Your task to perform on an android device: turn on priority inbox in the gmail app Image 0: 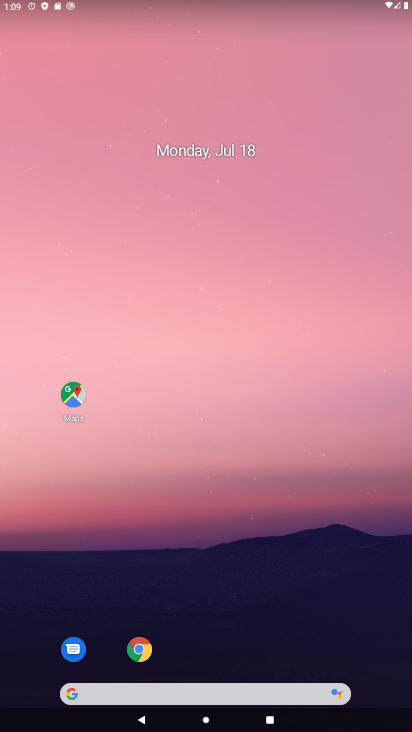
Step 0: drag from (215, 670) to (212, 211)
Your task to perform on an android device: turn on priority inbox in the gmail app Image 1: 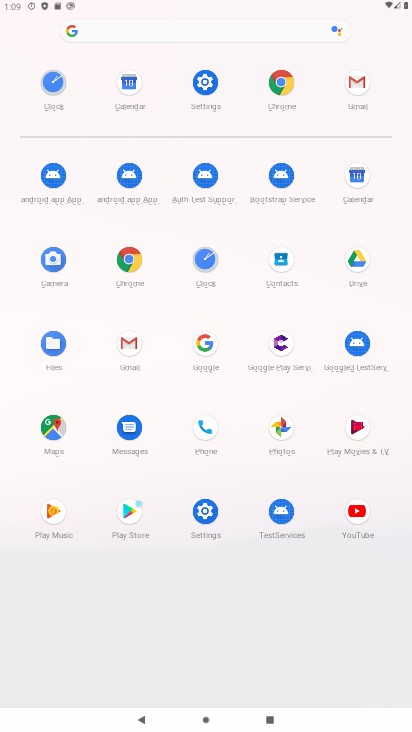
Step 1: click (369, 86)
Your task to perform on an android device: turn on priority inbox in the gmail app Image 2: 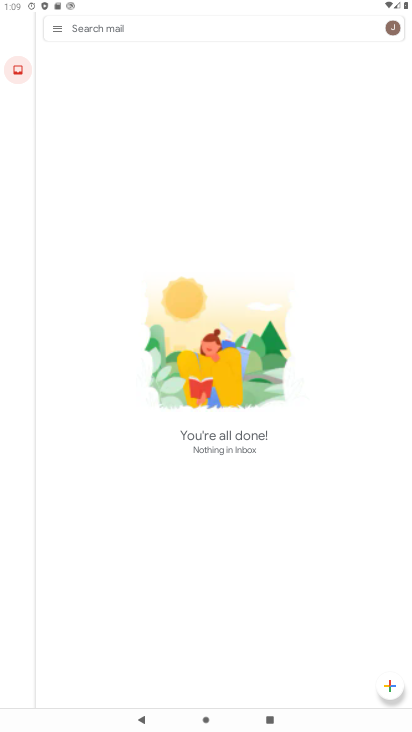
Step 2: click (58, 31)
Your task to perform on an android device: turn on priority inbox in the gmail app Image 3: 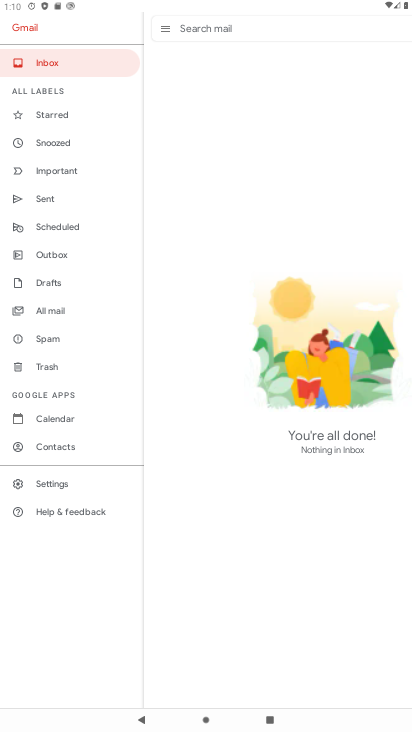
Step 3: click (40, 483)
Your task to perform on an android device: turn on priority inbox in the gmail app Image 4: 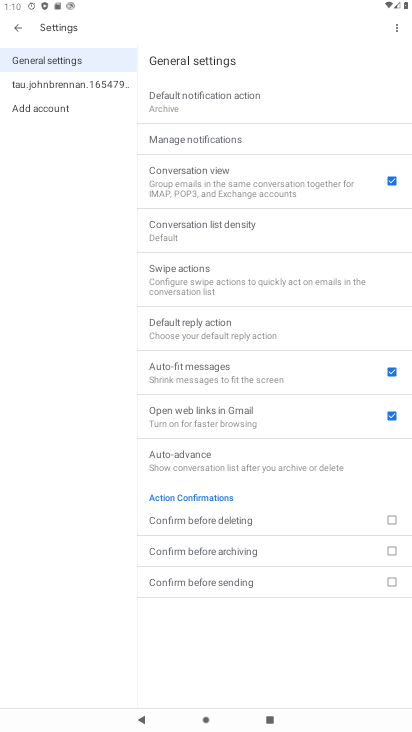
Step 4: click (32, 85)
Your task to perform on an android device: turn on priority inbox in the gmail app Image 5: 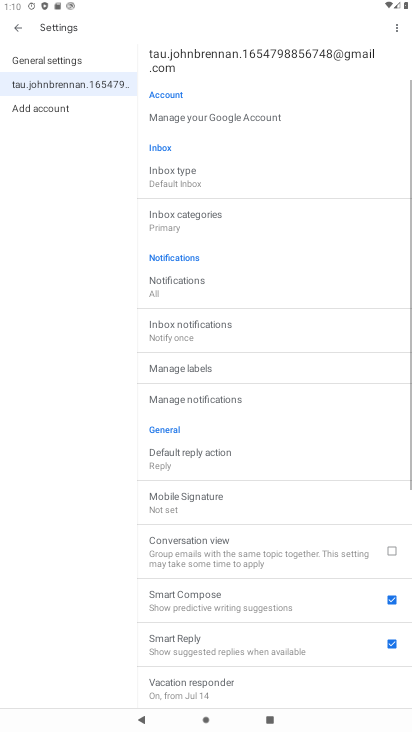
Step 5: click (221, 182)
Your task to perform on an android device: turn on priority inbox in the gmail app Image 6: 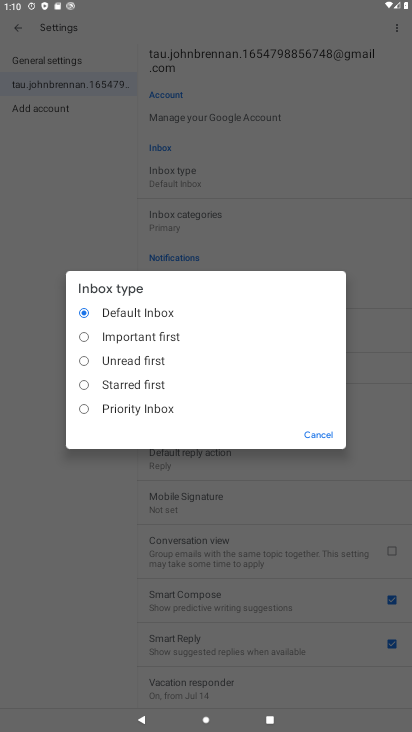
Step 6: click (128, 405)
Your task to perform on an android device: turn on priority inbox in the gmail app Image 7: 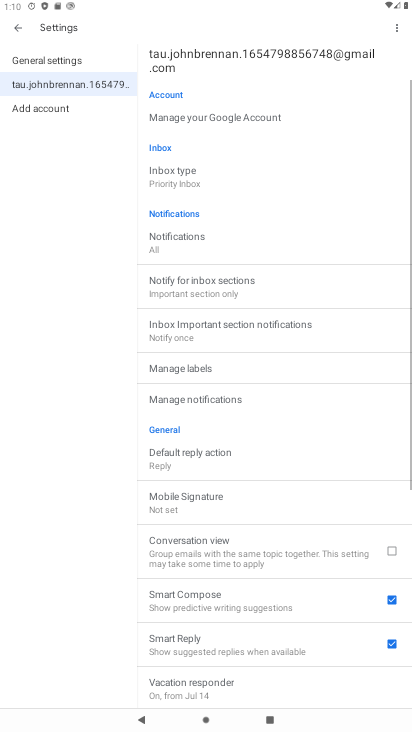
Step 7: task complete